Your task to perform on an android device: Clear all items from cart on bestbuy. Image 0: 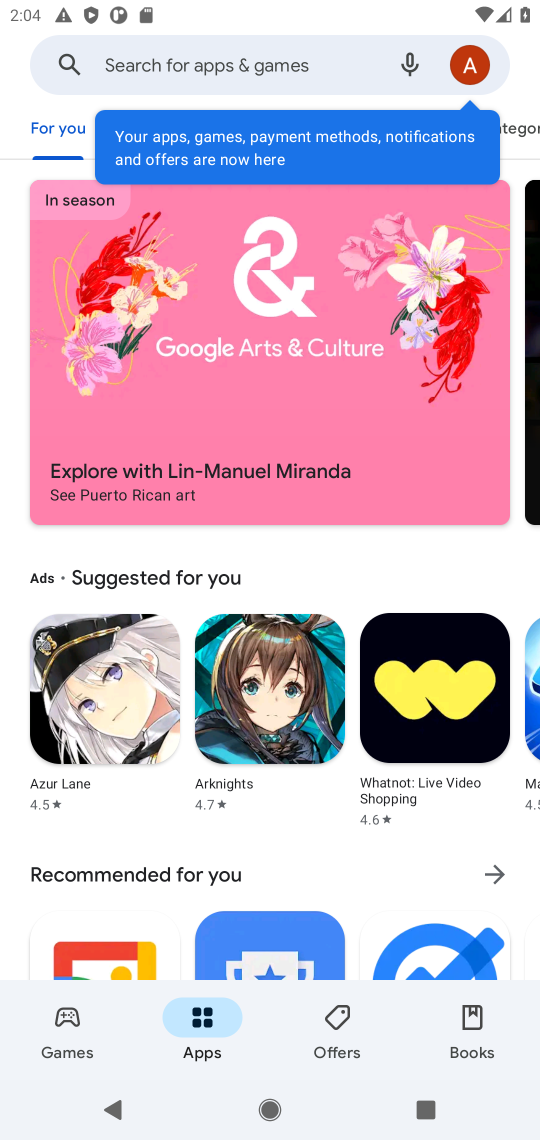
Step 0: press home button
Your task to perform on an android device: Clear all items from cart on bestbuy. Image 1: 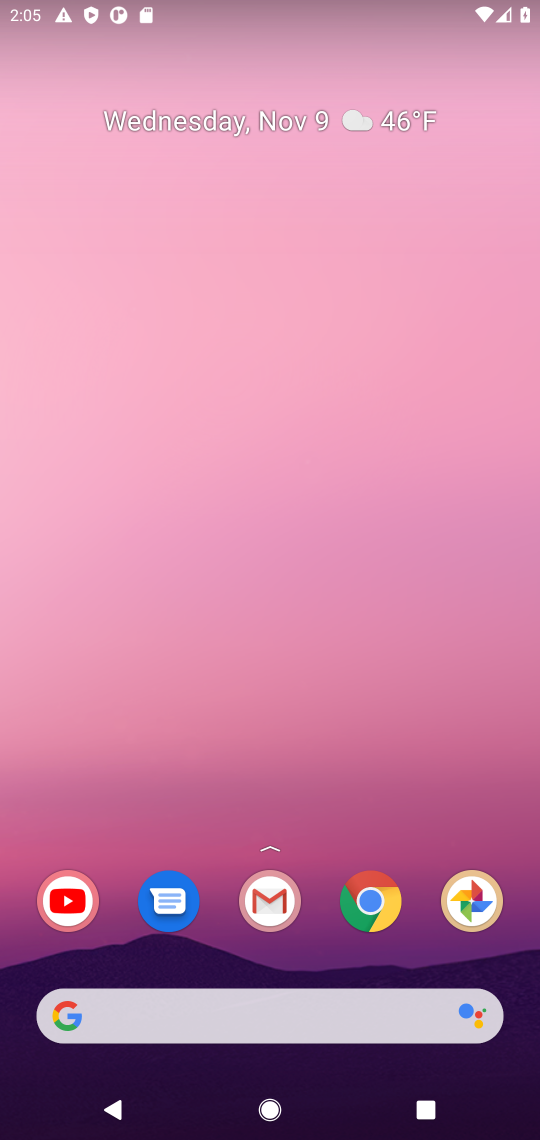
Step 1: press home button
Your task to perform on an android device: Clear all items from cart on bestbuy. Image 2: 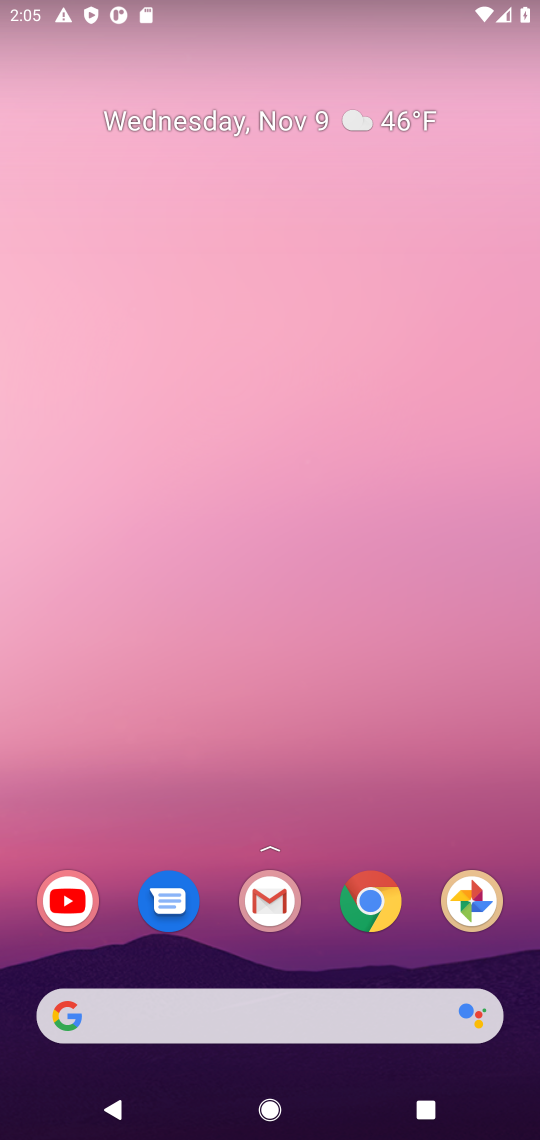
Step 2: click (380, 892)
Your task to perform on an android device: Clear all items from cart on bestbuy. Image 3: 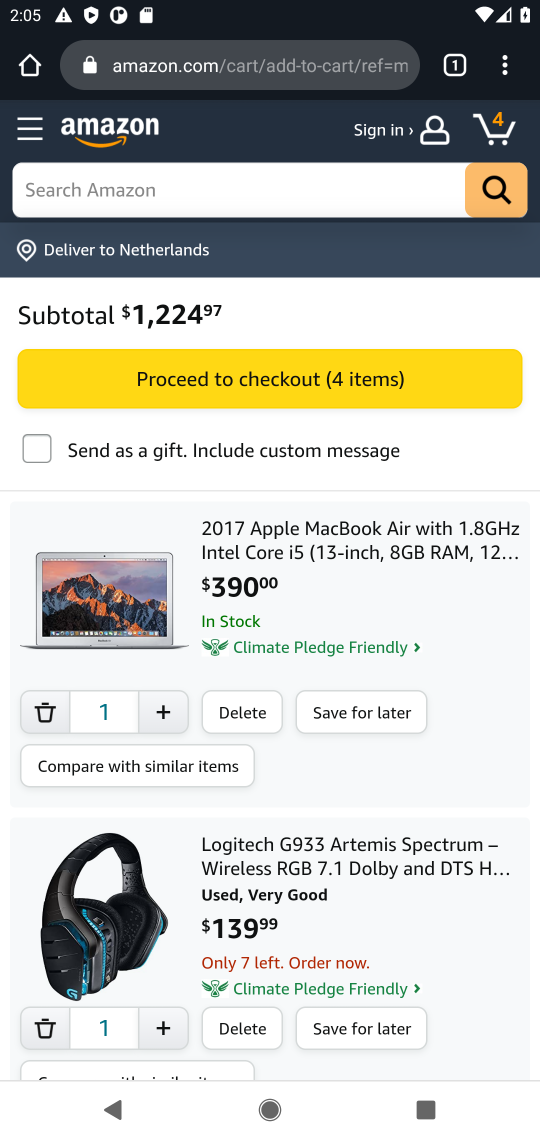
Step 3: click (354, 80)
Your task to perform on an android device: Clear all items from cart on bestbuy. Image 4: 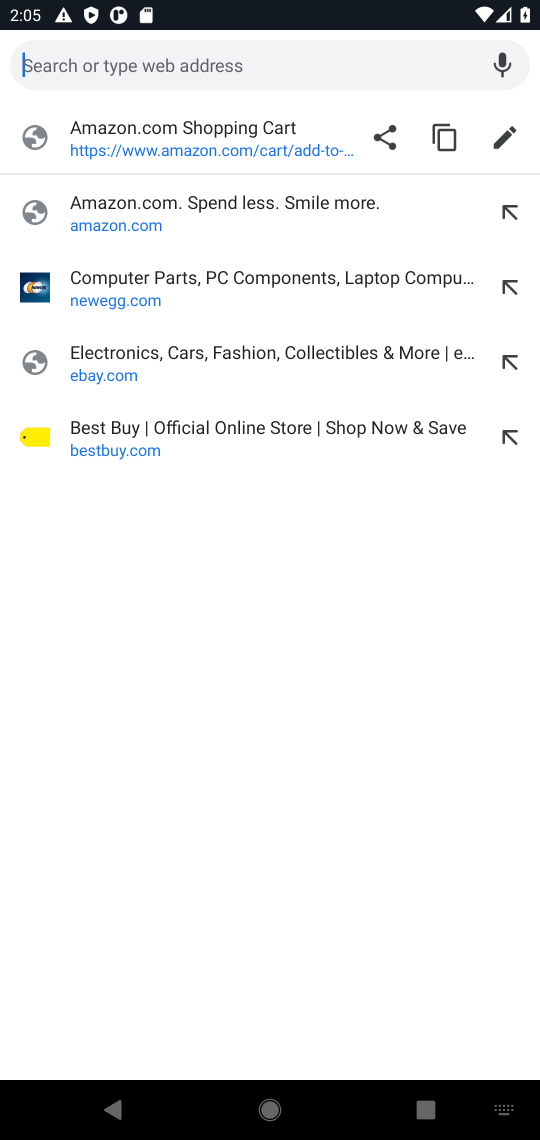
Step 4: type "bestbuy"
Your task to perform on an android device: Clear all items from cart on bestbuy. Image 5: 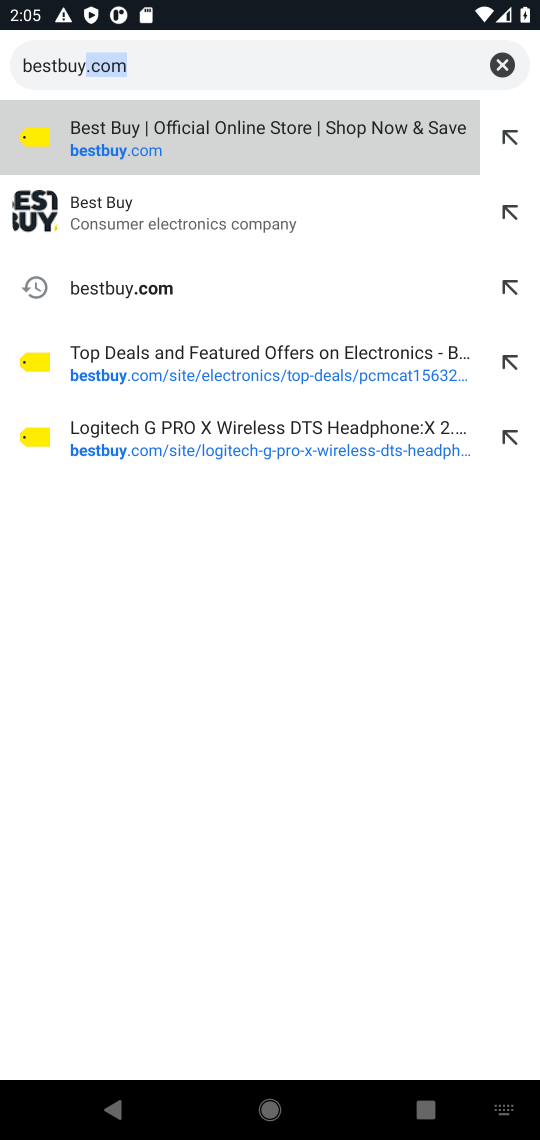
Step 5: click (394, 51)
Your task to perform on an android device: Clear all items from cart on bestbuy. Image 6: 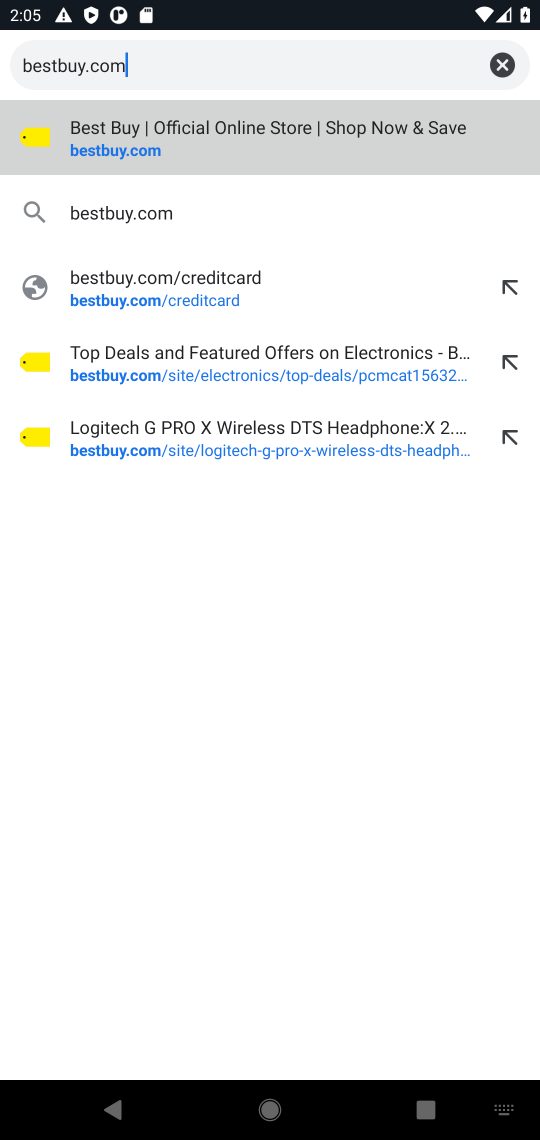
Step 6: click (137, 219)
Your task to perform on an android device: Clear all items from cart on bestbuy. Image 7: 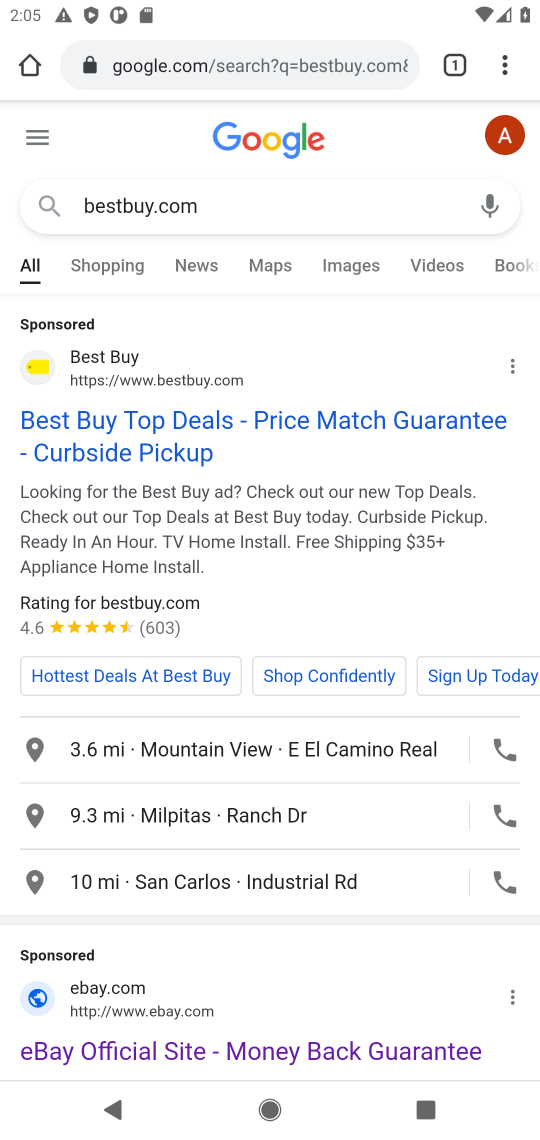
Step 7: click (152, 376)
Your task to perform on an android device: Clear all items from cart on bestbuy. Image 8: 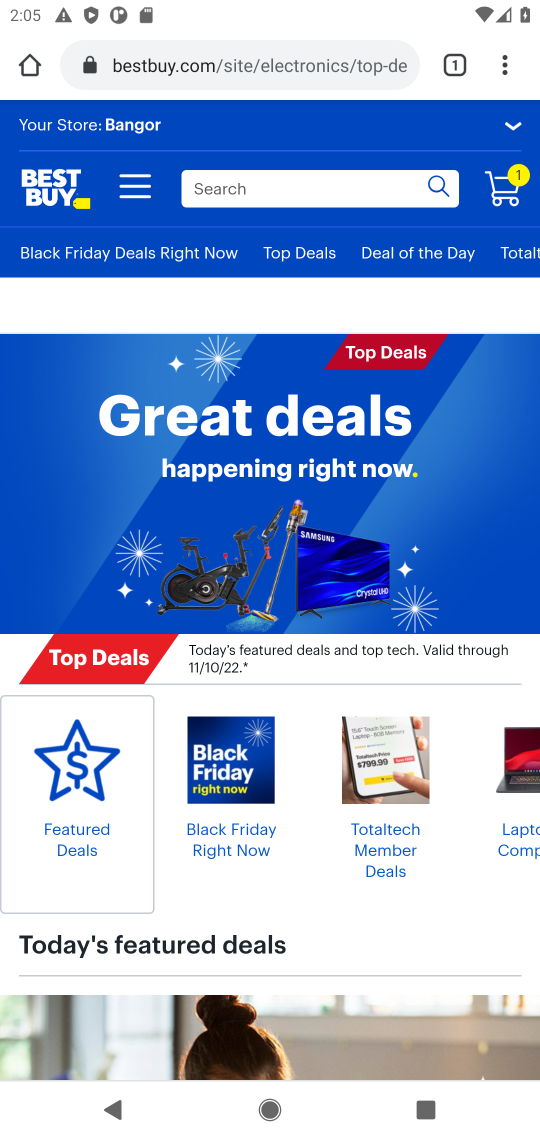
Step 8: click (500, 189)
Your task to perform on an android device: Clear all items from cart on bestbuy. Image 9: 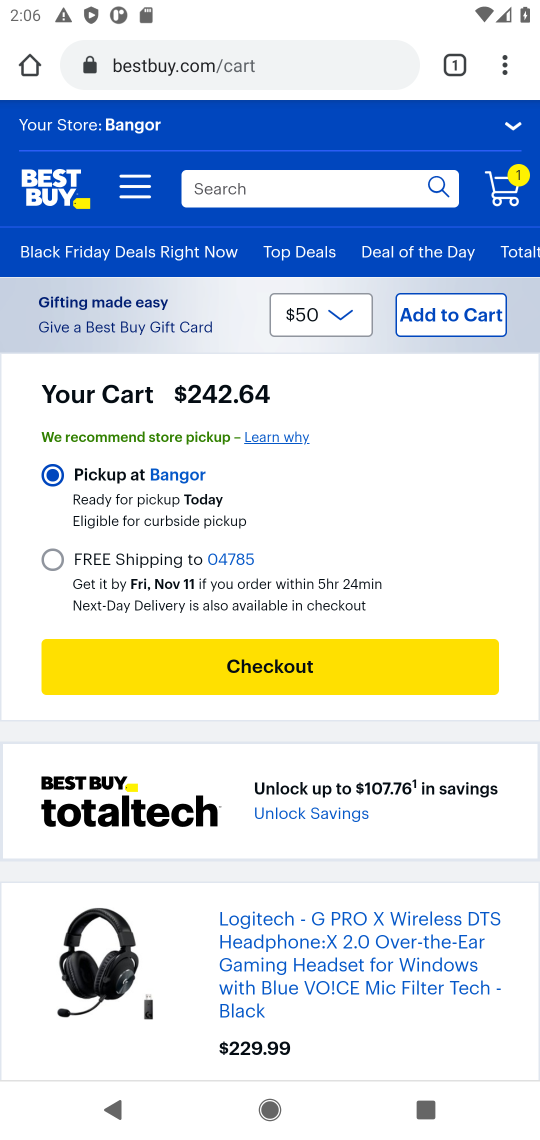
Step 9: drag from (411, 811) to (388, 422)
Your task to perform on an android device: Clear all items from cart on bestbuy. Image 10: 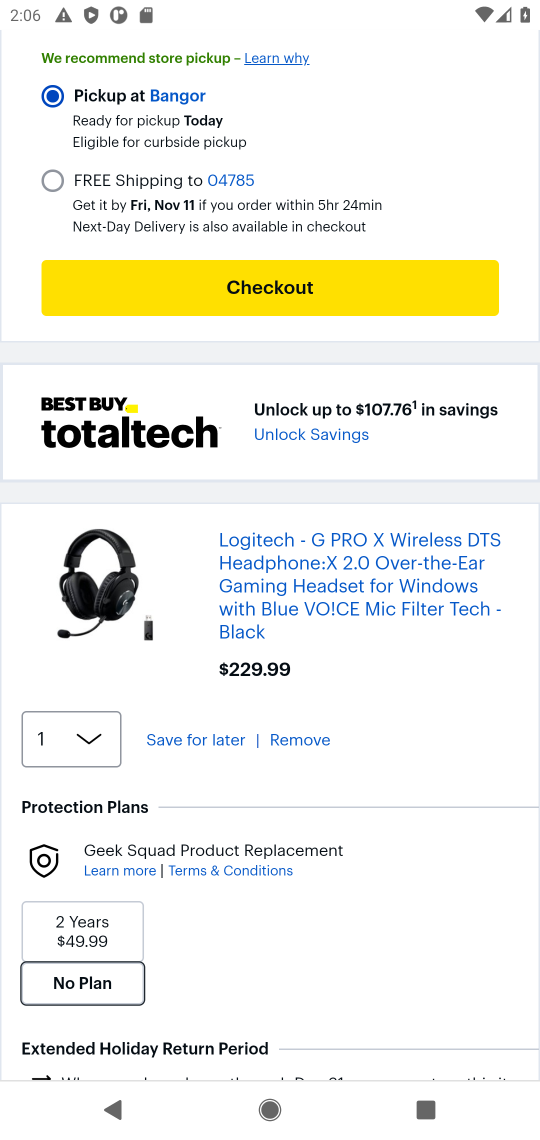
Step 10: click (309, 731)
Your task to perform on an android device: Clear all items from cart on bestbuy. Image 11: 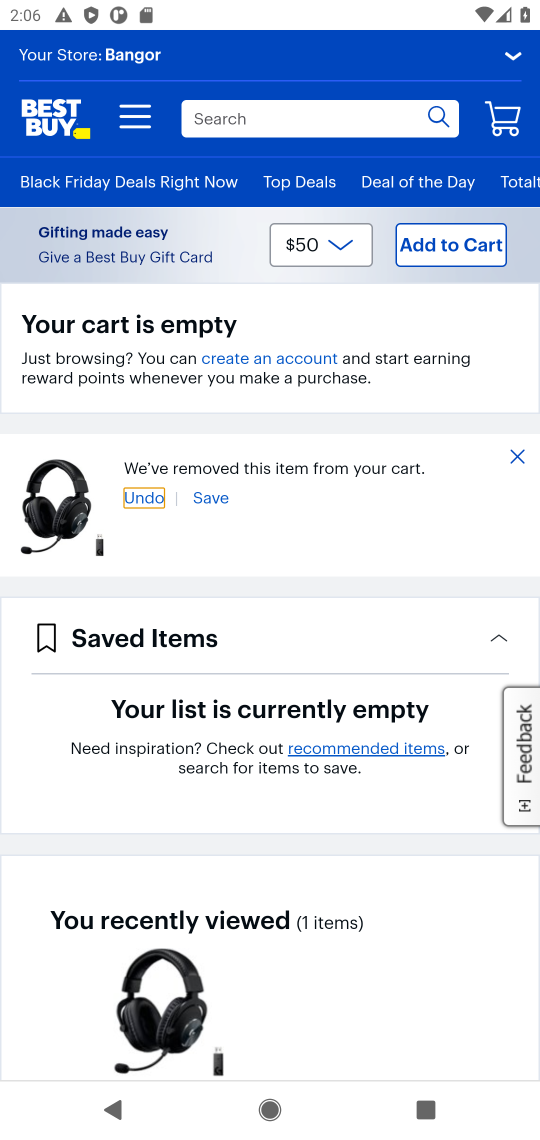
Step 11: click (518, 452)
Your task to perform on an android device: Clear all items from cart on bestbuy. Image 12: 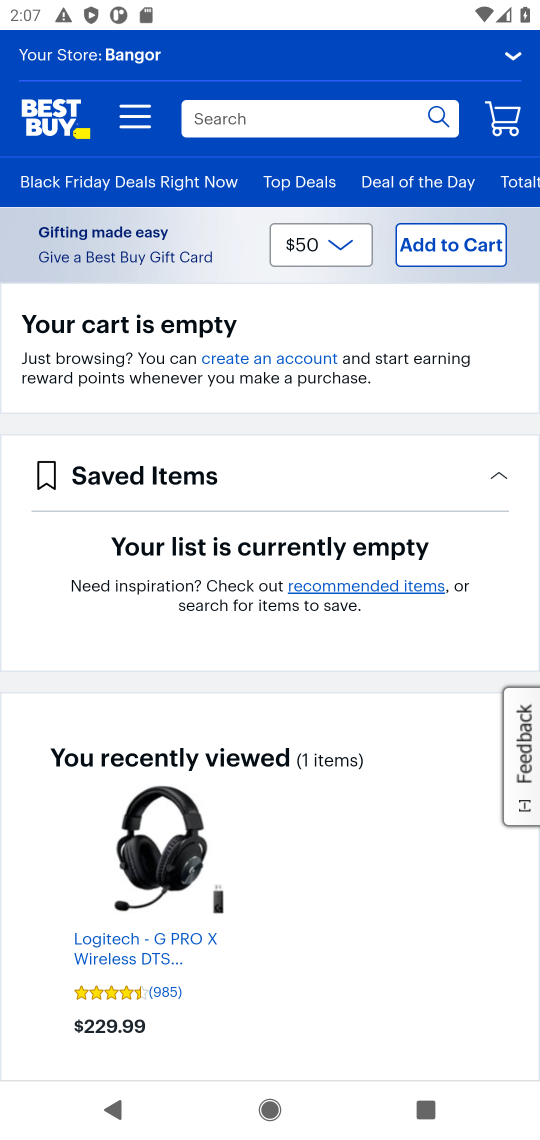
Step 12: task complete